Your task to perform on an android device: toggle data saver in the chrome app Image 0: 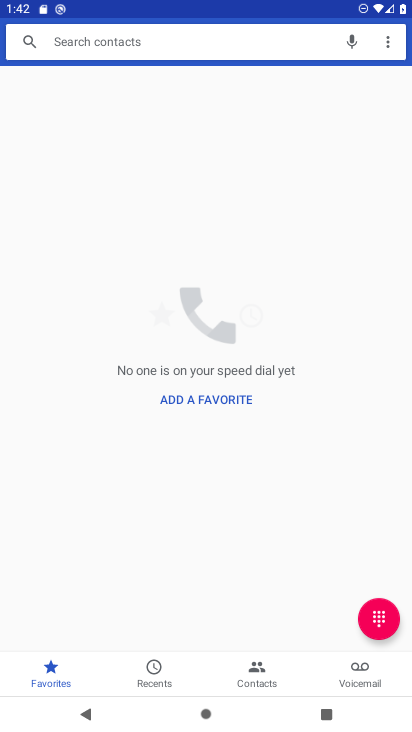
Step 0: press home button
Your task to perform on an android device: toggle data saver in the chrome app Image 1: 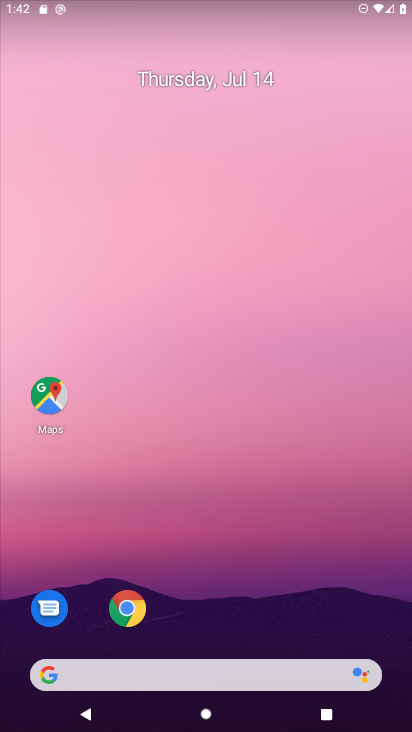
Step 1: click (125, 609)
Your task to perform on an android device: toggle data saver in the chrome app Image 2: 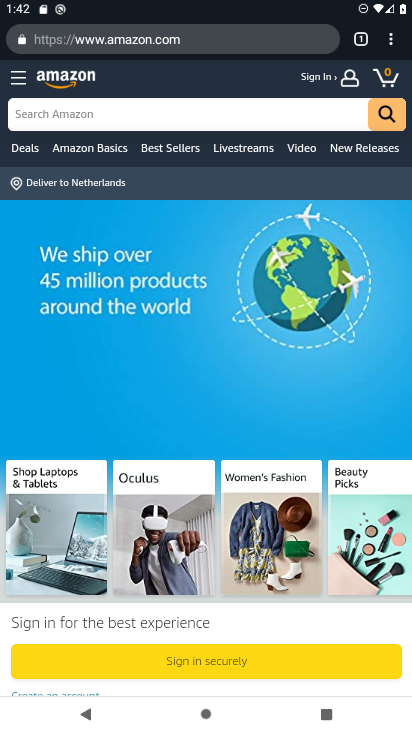
Step 2: click (391, 42)
Your task to perform on an android device: toggle data saver in the chrome app Image 3: 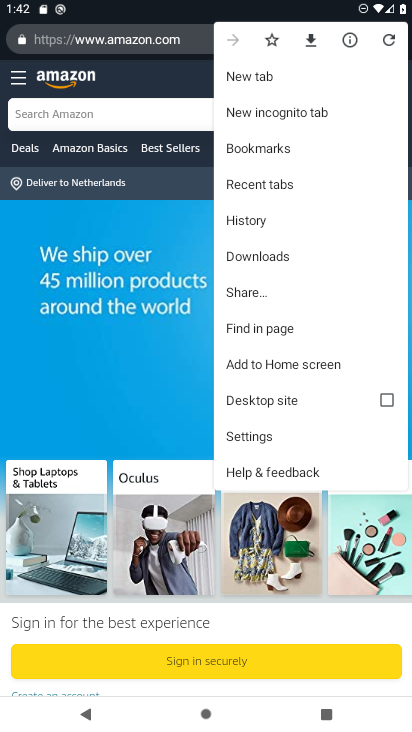
Step 3: click (254, 433)
Your task to perform on an android device: toggle data saver in the chrome app Image 4: 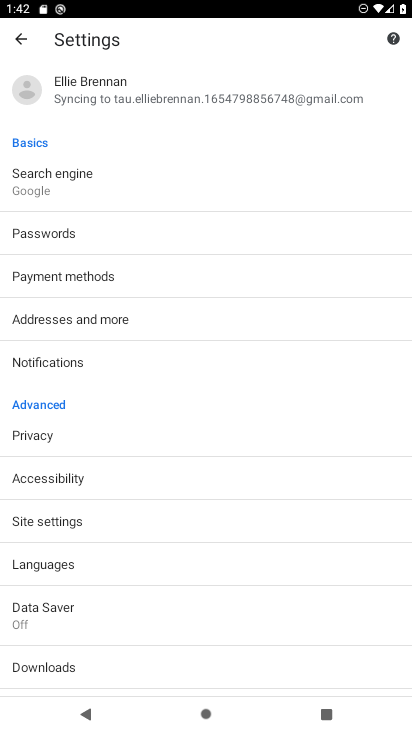
Step 4: click (48, 614)
Your task to perform on an android device: toggle data saver in the chrome app Image 5: 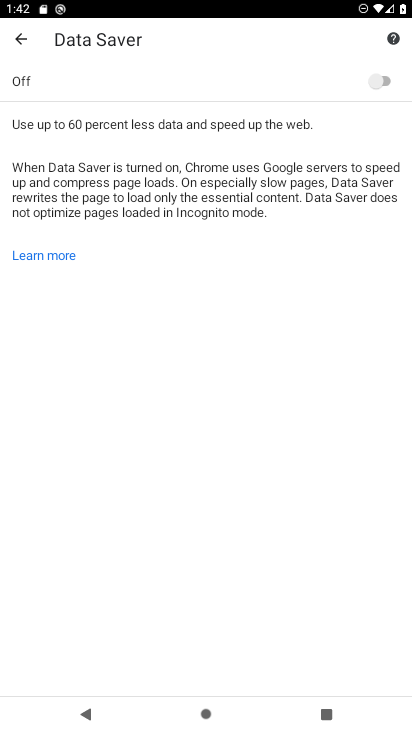
Step 5: click (386, 80)
Your task to perform on an android device: toggle data saver in the chrome app Image 6: 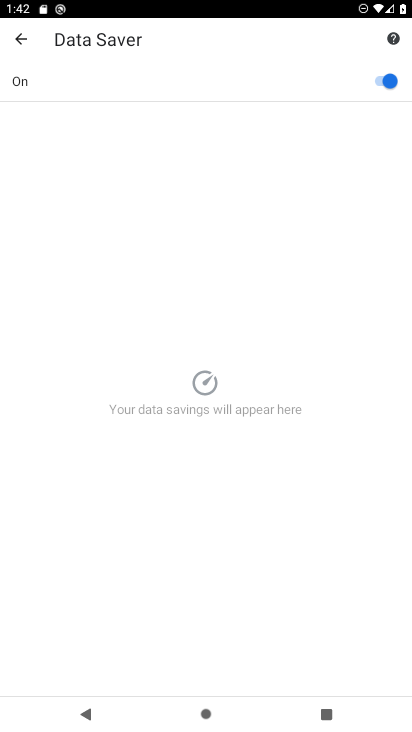
Step 6: task complete